Your task to perform on an android device: Go to privacy settings Image 0: 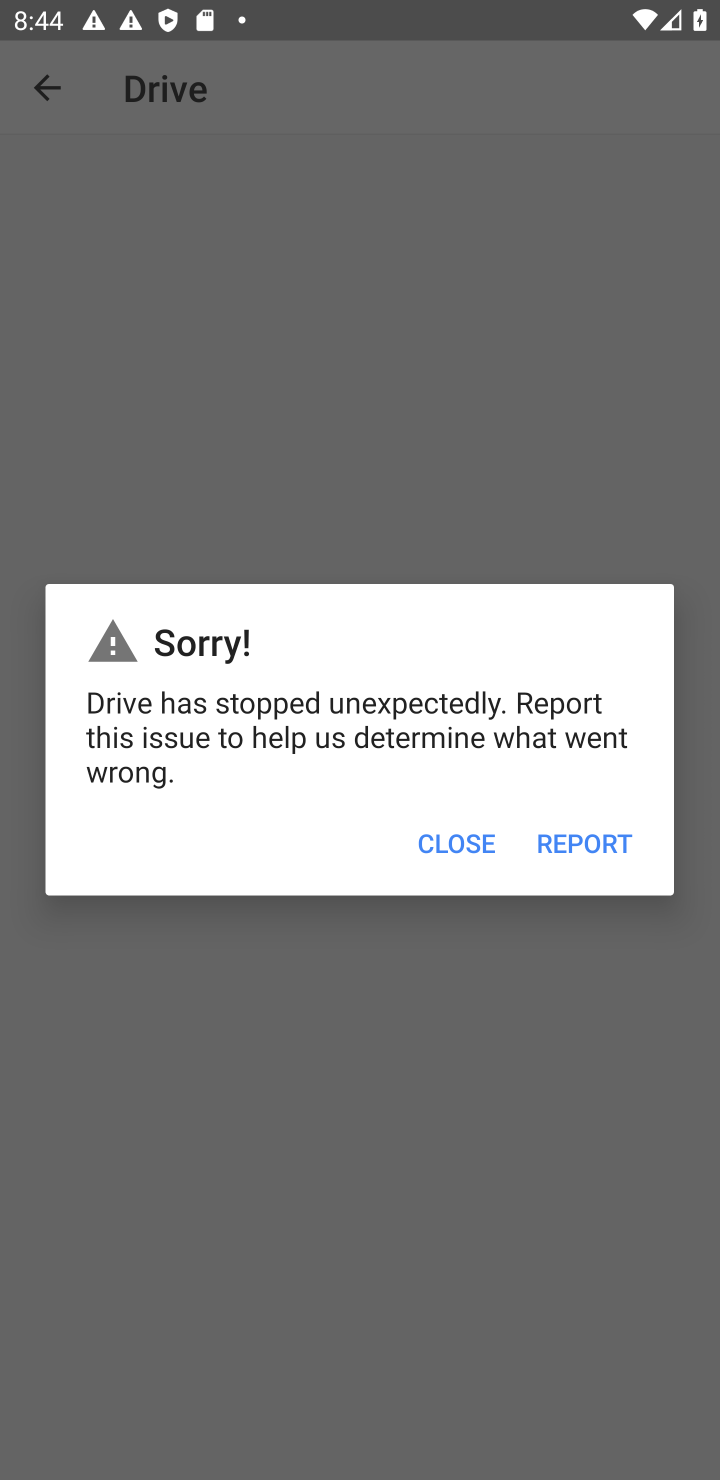
Step 0: press home button
Your task to perform on an android device: Go to privacy settings Image 1: 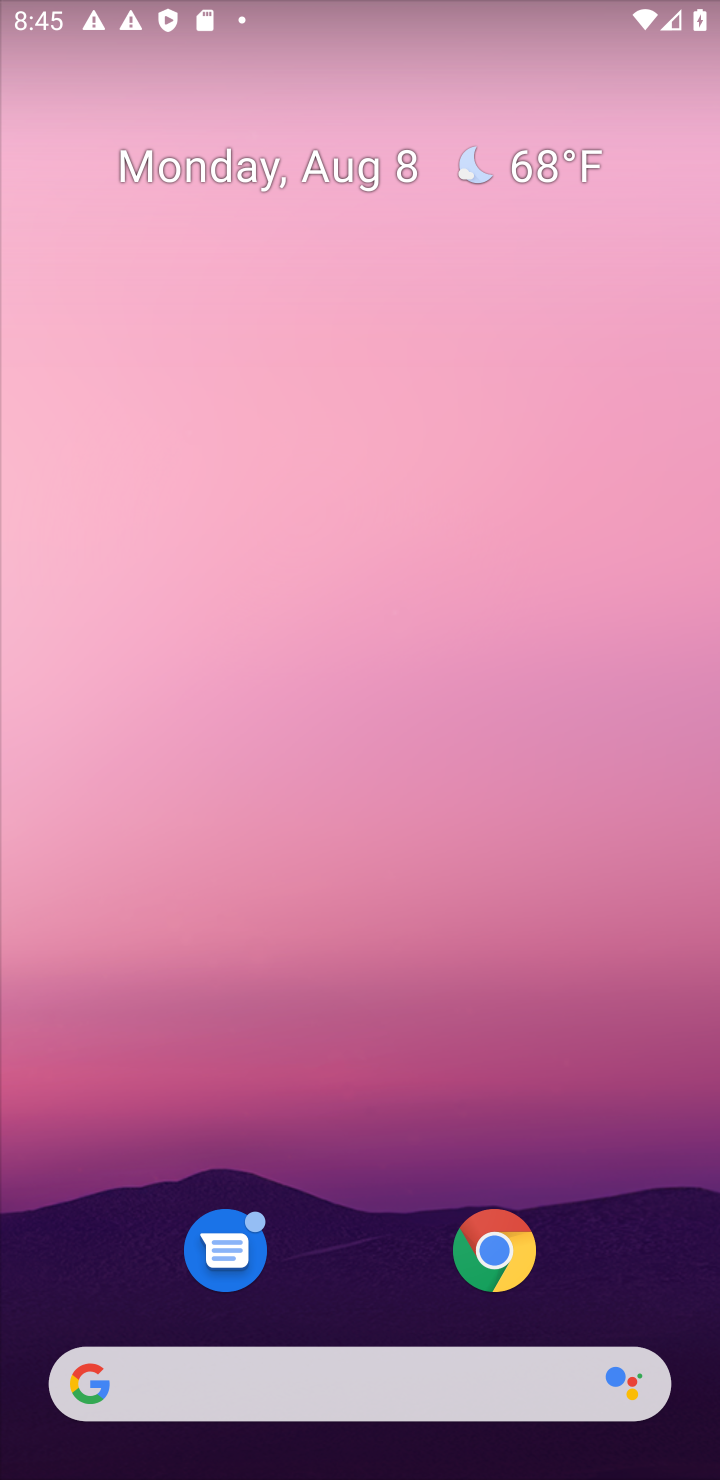
Step 1: drag from (649, 1258) to (608, 453)
Your task to perform on an android device: Go to privacy settings Image 2: 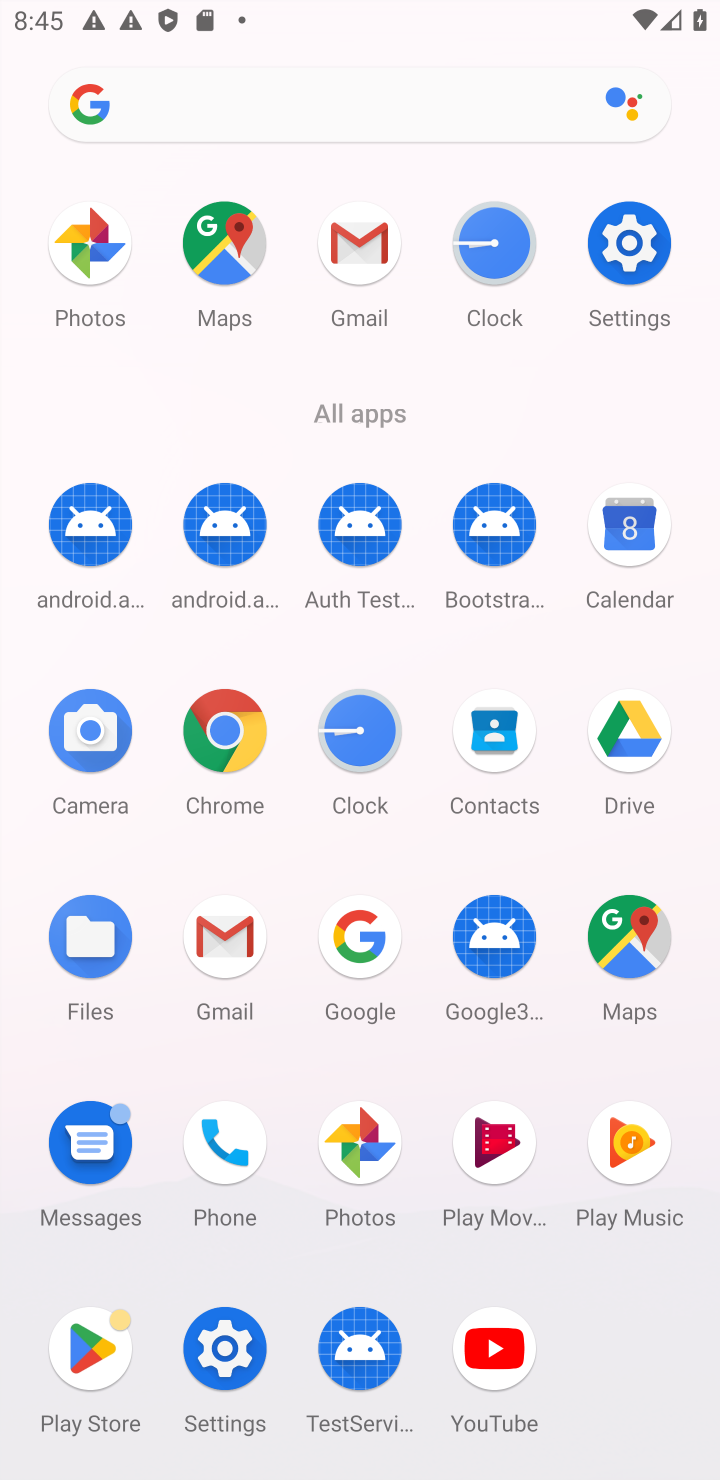
Step 2: click (251, 1332)
Your task to perform on an android device: Go to privacy settings Image 3: 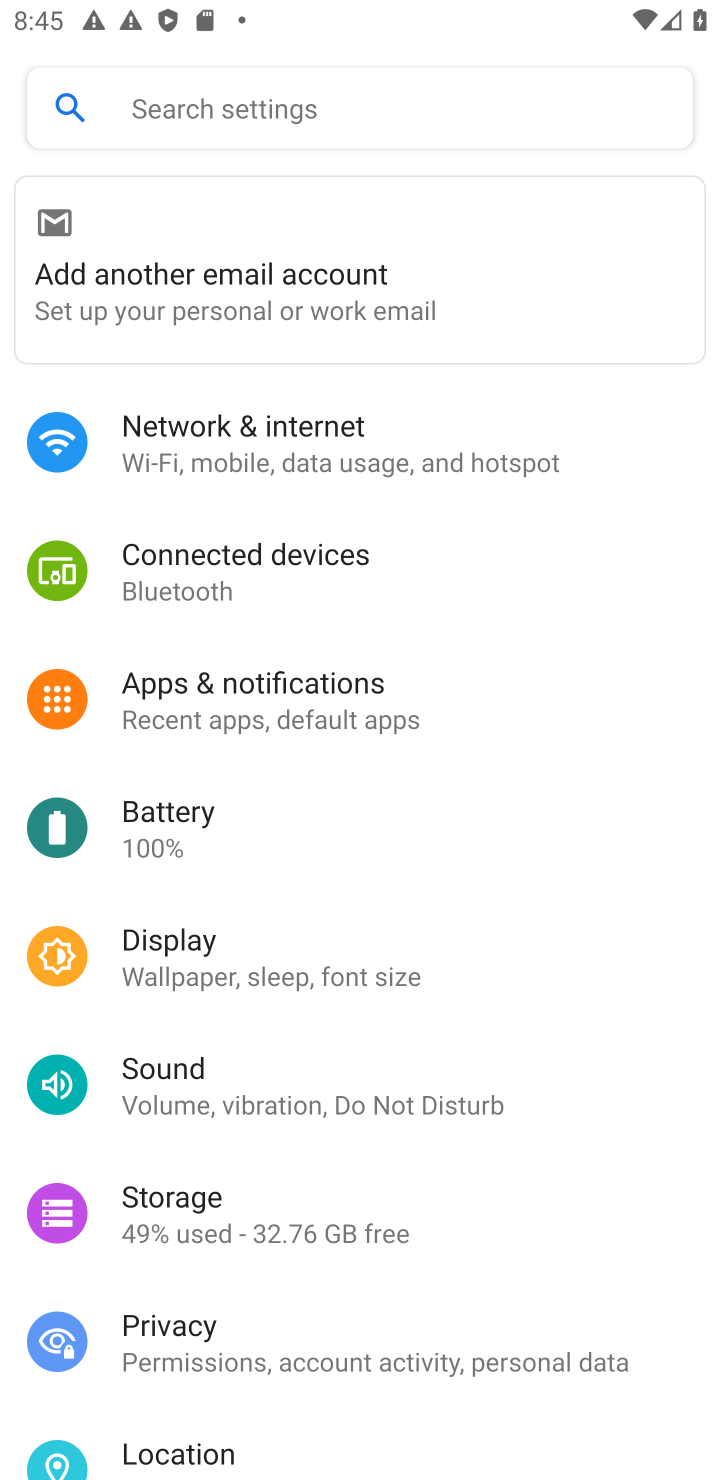
Step 3: click (399, 1347)
Your task to perform on an android device: Go to privacy settings Image 4: 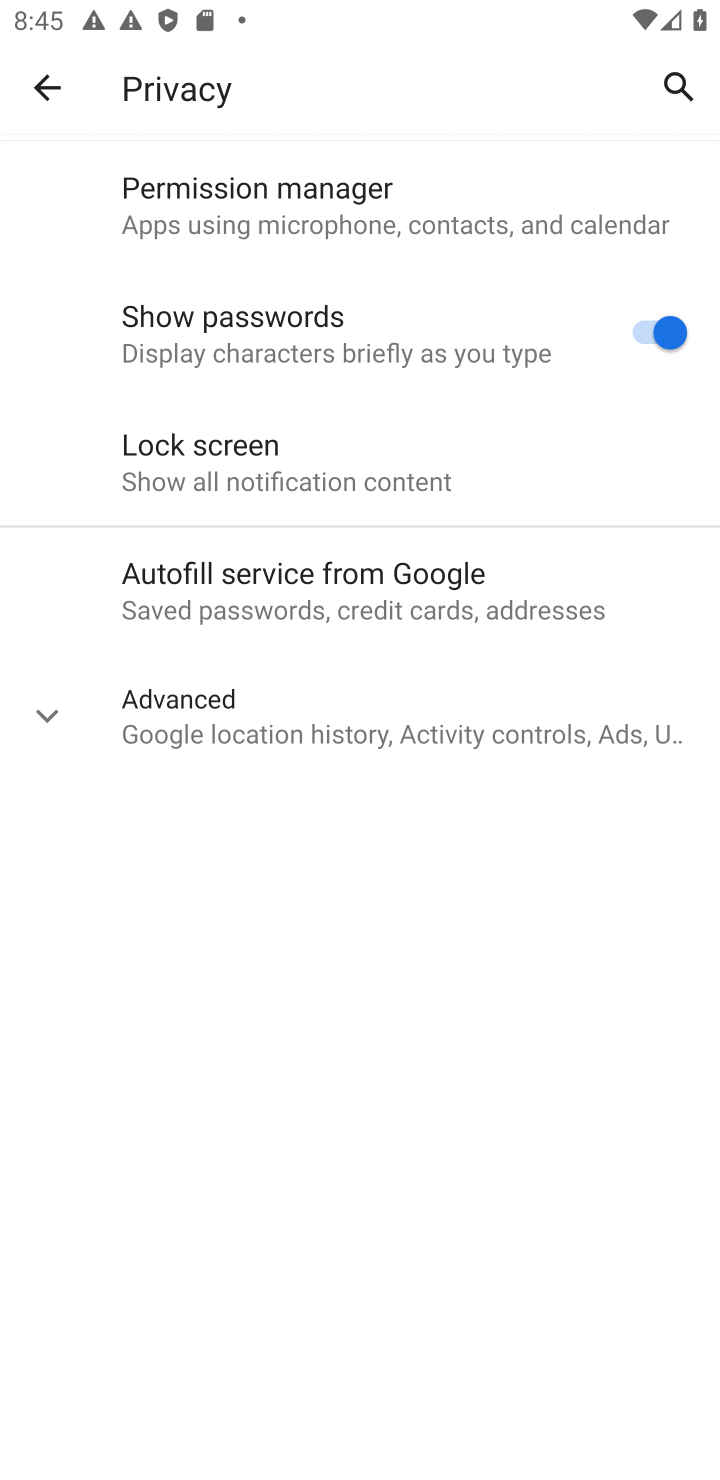
Step 4: task complete